Your task to perform on an android device: make emails show in primary in the gmail app Image 0: 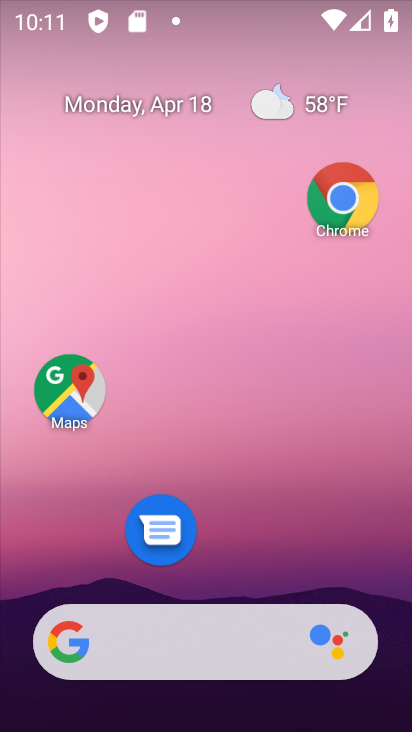
Step 0: drag from (174, 494) to (203, 227)
Your task to perform on an android device: make emails show in primary in the gmail app Image 1: 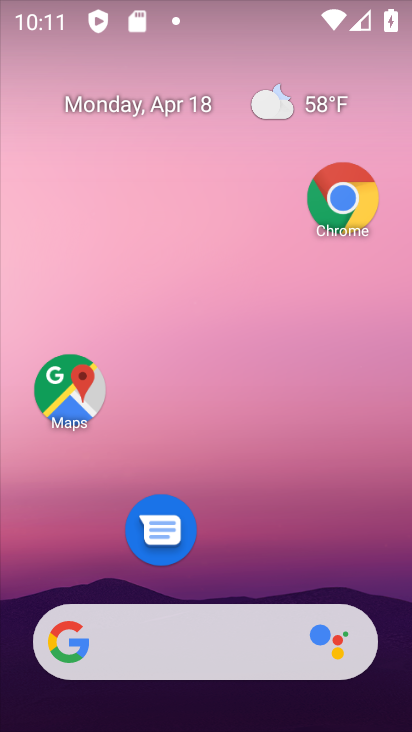
Step 1: drag from (202, 586) to (290, 123)
Your task to perform on an android device: make emails show in primary in the gmail app Image 2: 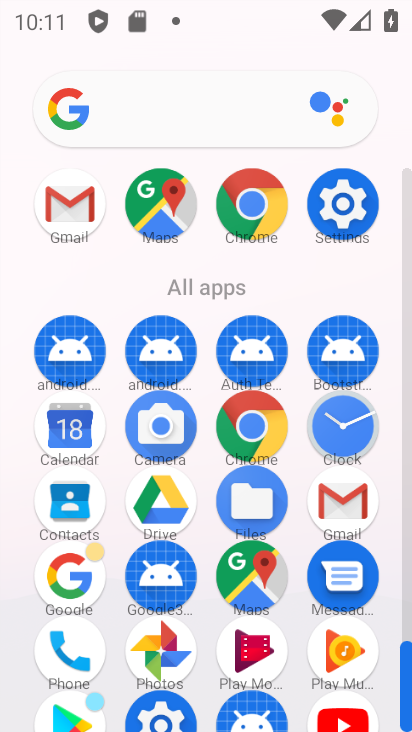
Step 2: click (343, 504)
Your task to perform on an android device: make emails show in primary in the gmail app Image 3: 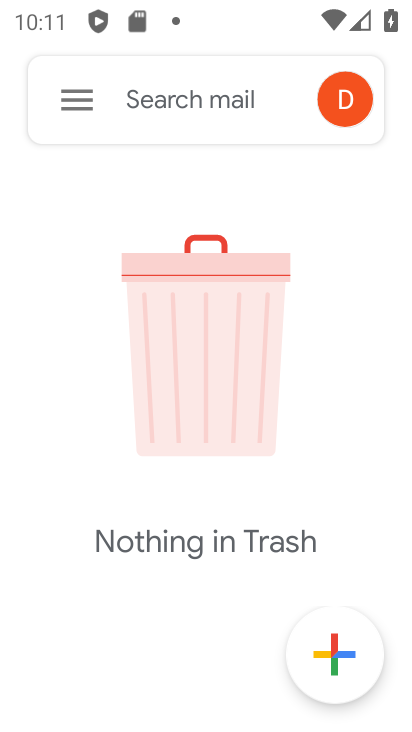
Step 3: click (60, 97)
Your task to perform on an android device: make emails show in primary in the gmail app Image 4: 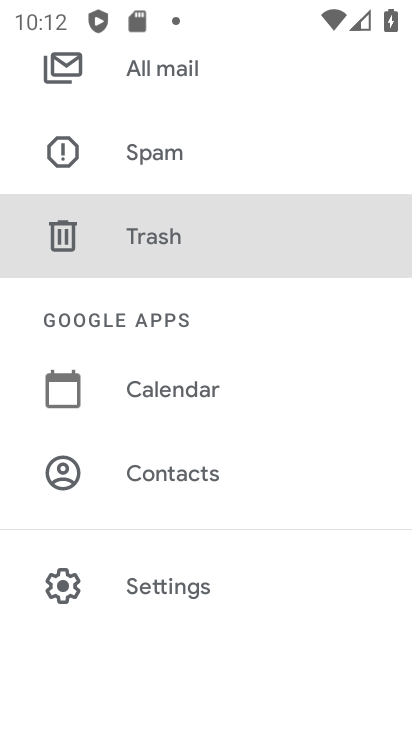
Step 4: click (198, 587)
Your task to perform on an android device: make emails show in primary in the gmail app Image 5: 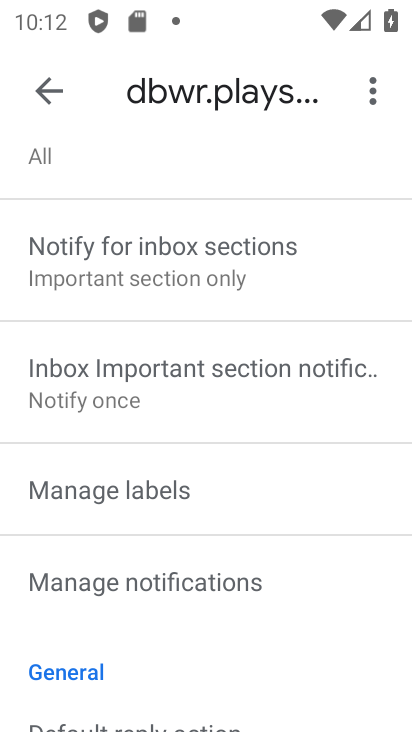
Step 5: drag from (175, 567) to (238, 419)
Your task to perform on an android device: make emails show in primary in the gmail app Image 6: 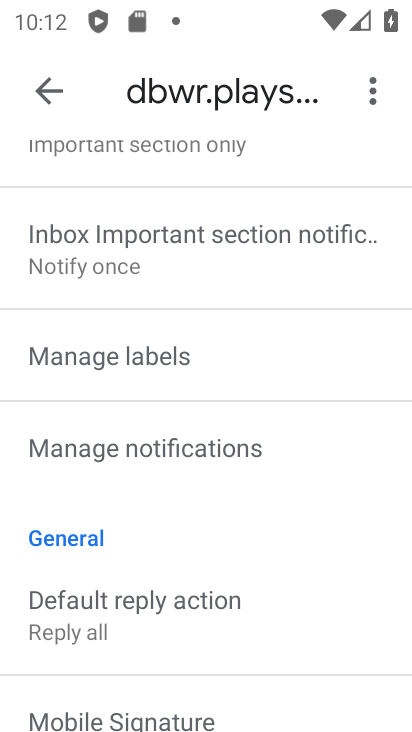
Step 6: drag from (195, 261) to (176, 466)
Your task to perform on an android device: make emails show in primary in the gmail app Image 7: 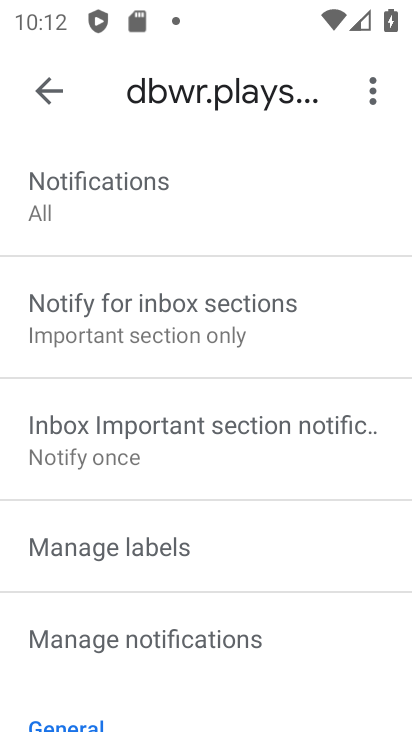
Step 7: drag from (112, 244) to (132, 491)
Your task to perform on an android device: make emails show in primary in the gmail app Image 8: 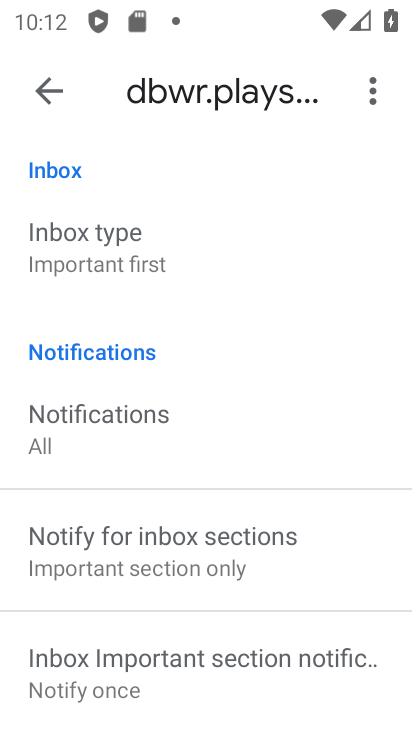
Step 8: click (131, 240)
Your task to perform on an android device: make emails show in primary in the gmail app Image 9: 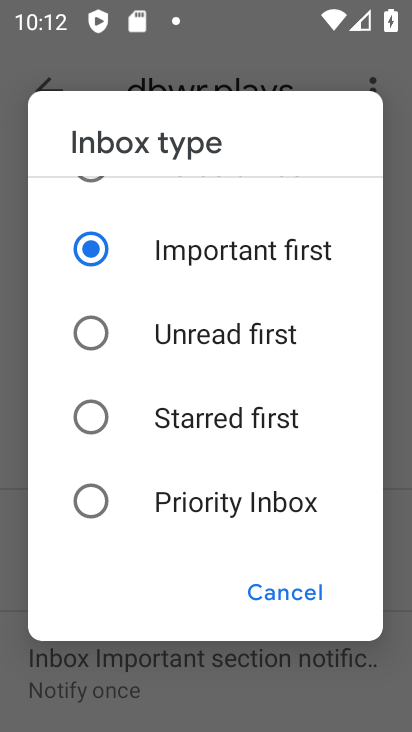
Step 9: click (183, 238)
Your task to perform on an android device: make emails show in primary in the gmail app Image 10: 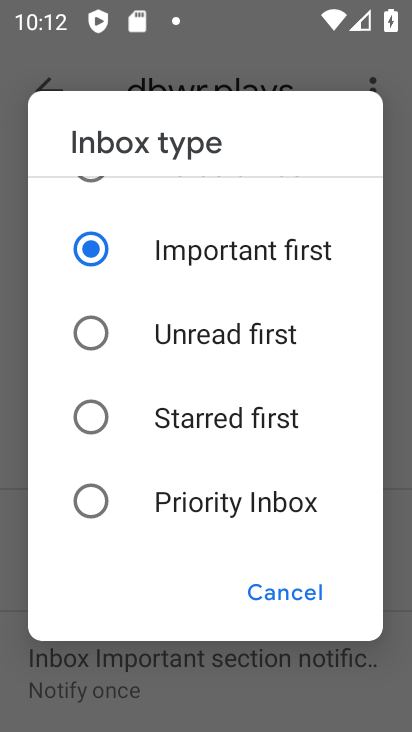
Step 10: click (85, 507)
Your task to perform on an android device: make emails show in primary in the gmail app Image 11: 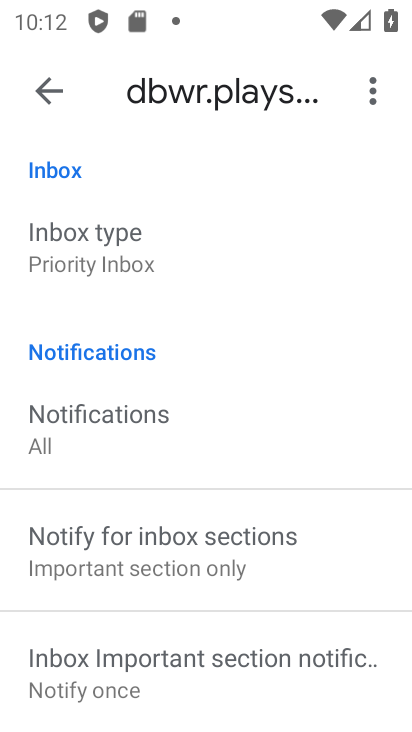
Step 11: click (50, 96)
Your task to perform on an android device: make emails show in primary in the gmail app Image 12: 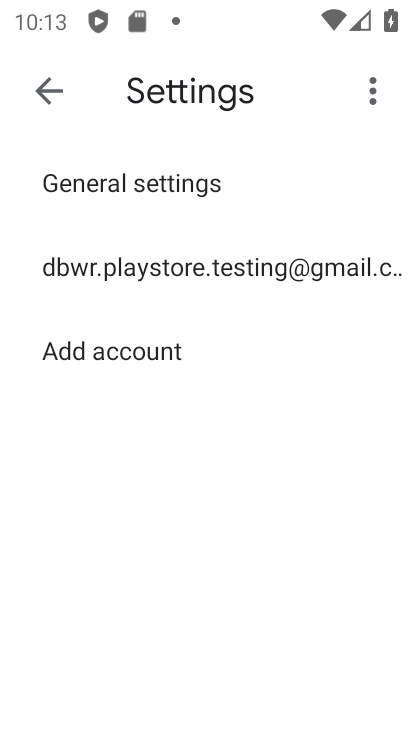
Step 12: click (50, 85)
Your task to perform on an android device: make emails show in primary in the gmail app Image 13: 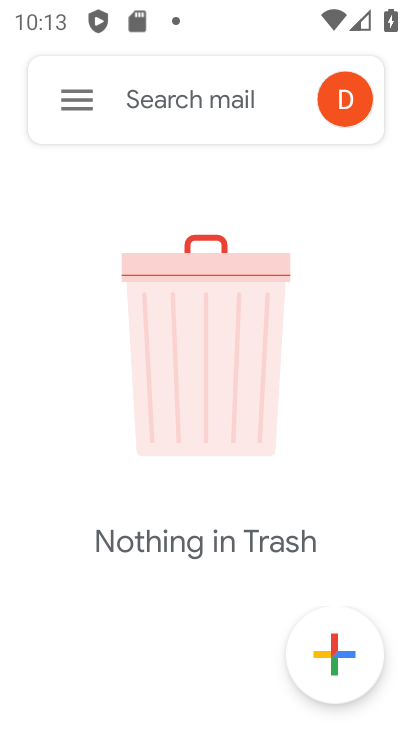
Step 13: click (66, 107)
Your task to perform on an android device: make emails show in primary in the gmail app Image 14: 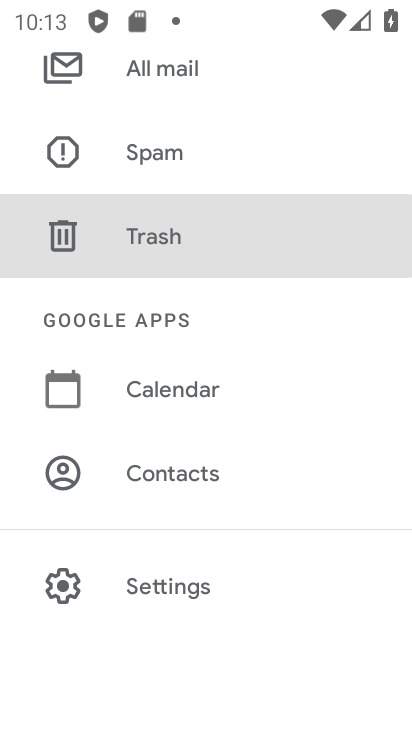
Step 14: task complete